Your task to perform on an android device: Open accessibility settings Image 0: 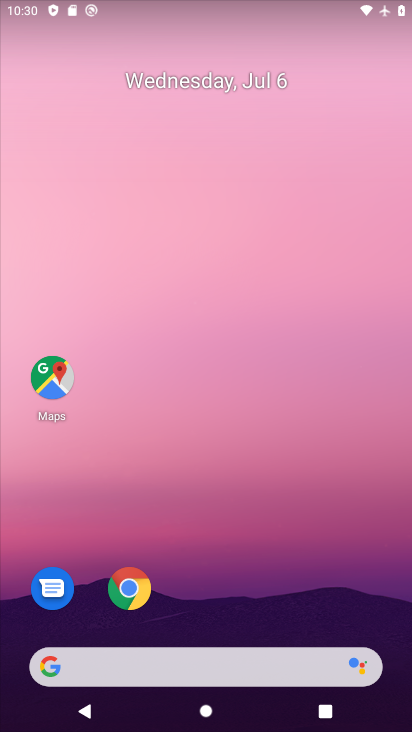
Step 0: drag from (211, 662) to (298, 10)
Your task to perform on an android device: Open accessibility settings Image 1: 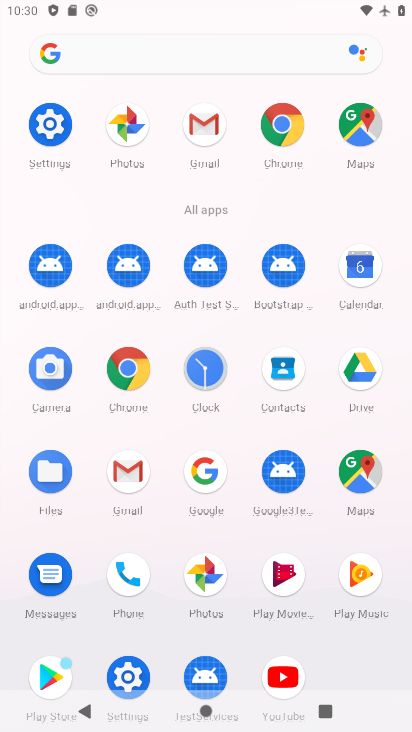
Step 1: click (60, 130)
Your task to perform on an android device: Open accessibility settings Image 2: 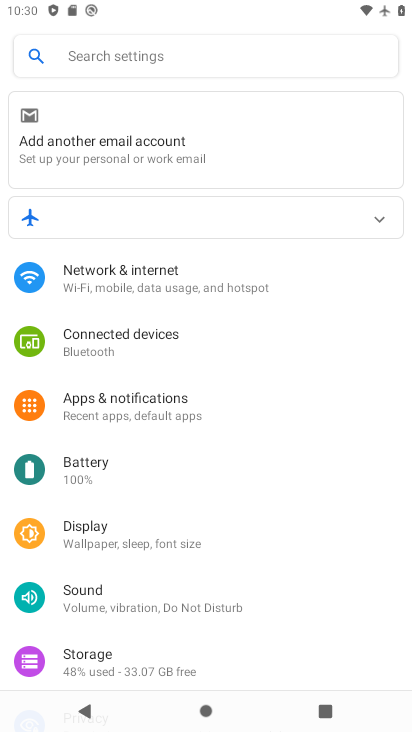
Step 2: drag from (135, 647) to (184, 187)
Your task to perform on an android device: Open accessibility settings Image 3: 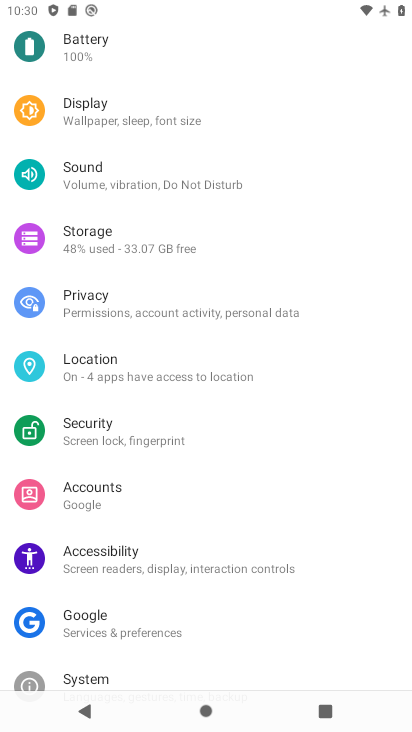
Step 3: click (120, 562)
Your task to perform on an android device: Open accessibility settings Image 4: 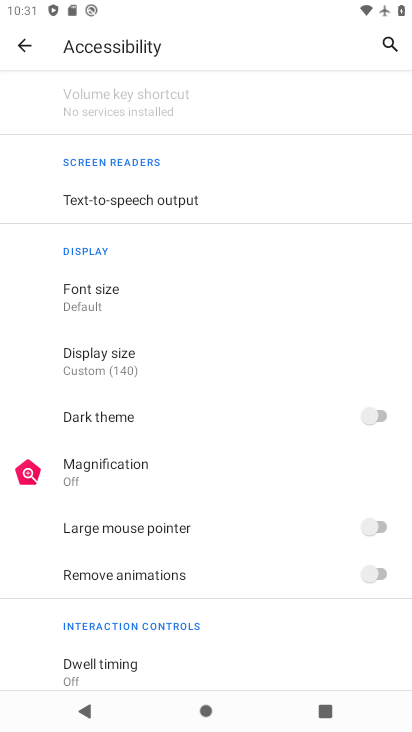
Step 4: task complete